Your task to perform on an android device: all mails in gmail Image 0: 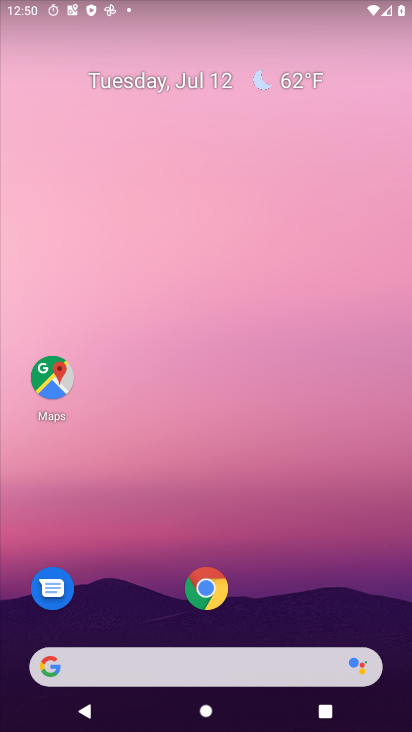
Step 0: drag from (218, 373) to (226, 69)
Your task to perform on an android device: all mails in gmail Image 1: 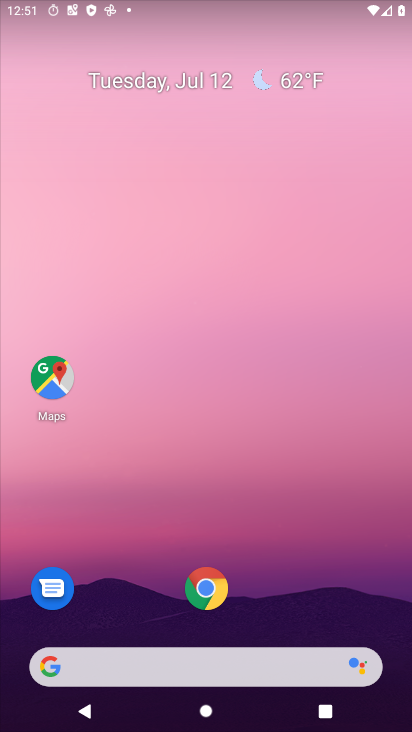
Step 1: drag from (263, 628) to (209, 8)
Your task to perform on an android device: all mails in gmail Image 2: 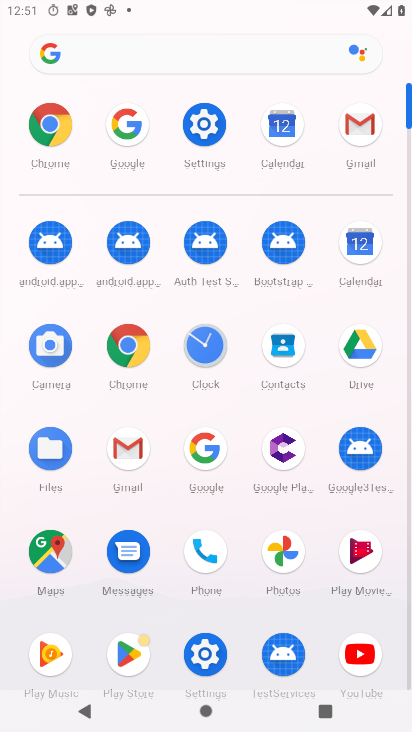
Step 2: click (121, 450)
Your task to perform on an android device: all mails in gmail Image 3: 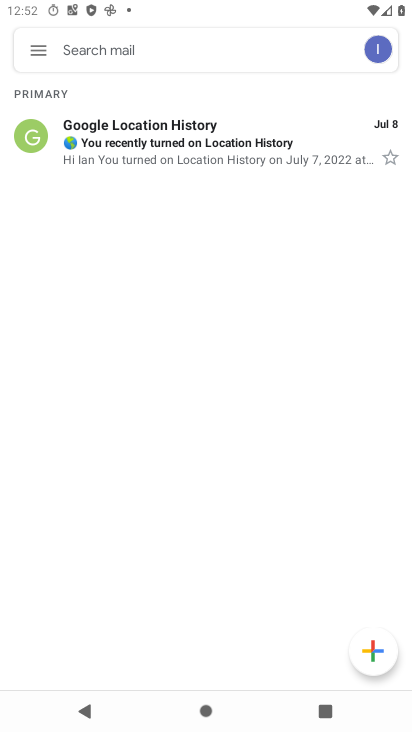
Step 3: press home button
Your task to perform on an android device: all mails in gmail Image 4: 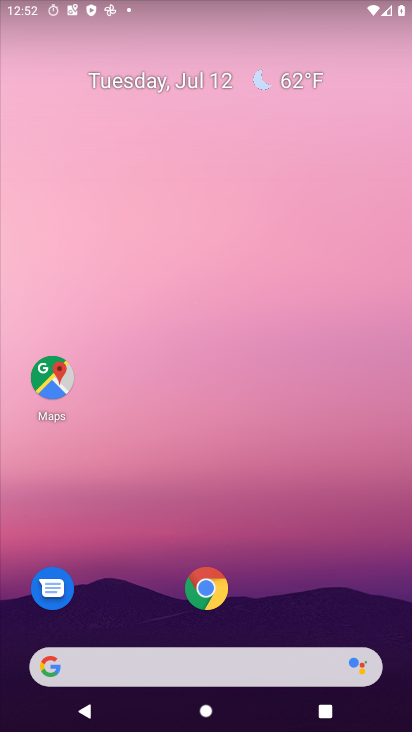
Step 4: drag from (220, 478) to (310, 138)
Your task to perform on an android device: all mails in gmail Image 5: 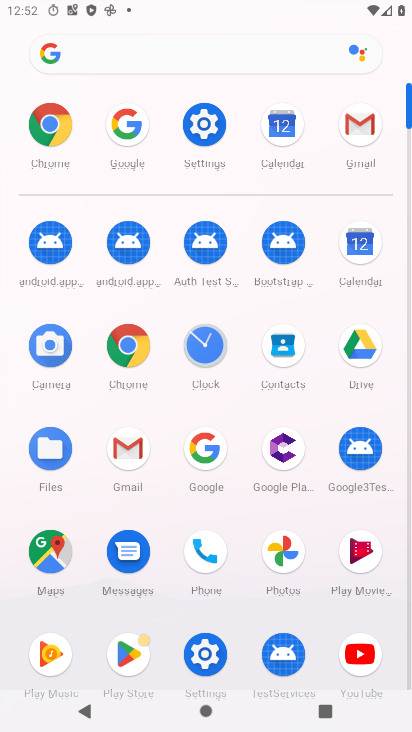
Step 5: click (358, 122)
Your task to perform on an android device: all mails in gmail Image 6: 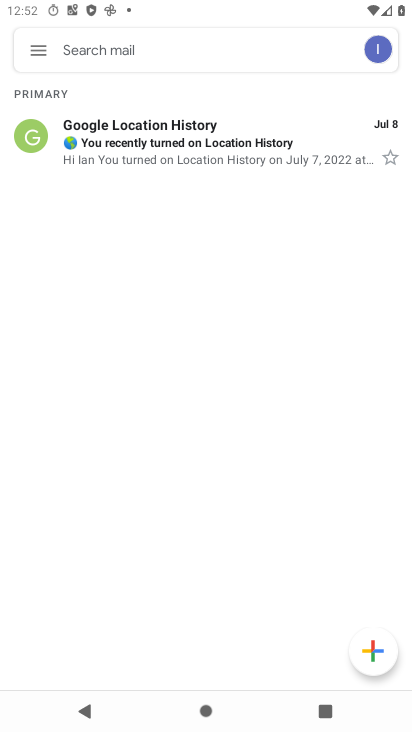
Step 6: click (34, 50)
Your task to perform on an android device: all mails in gmail Image 7: 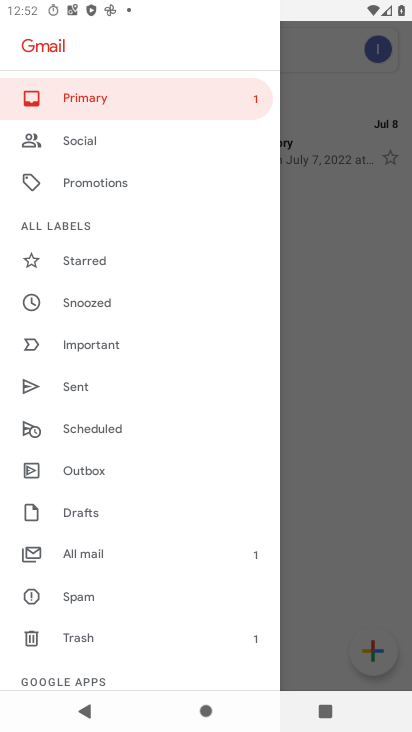
Step 7: click (75, 557)
Your task to perform on an android device: all mails in gmail Image 8: 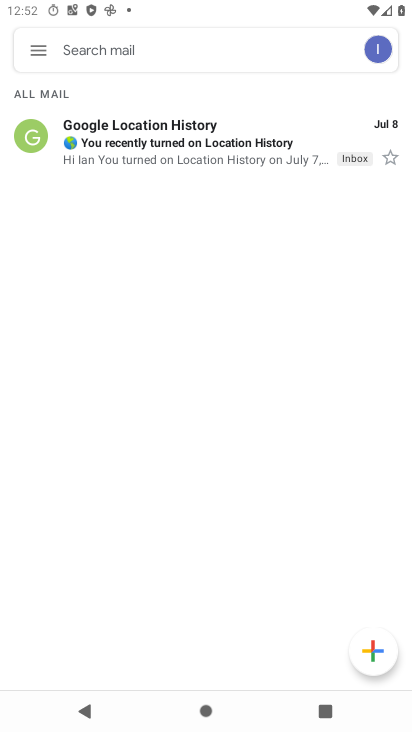
Step 8: task complete